Your task to perform on an android device: delete a single message in the gmail app Image 0: 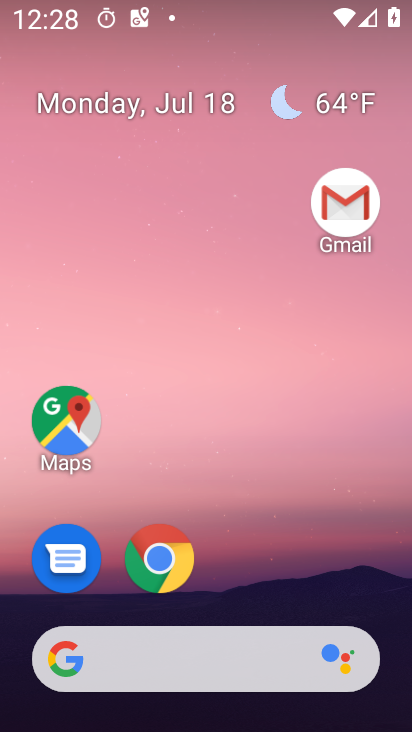
Step 0: drag from (285, 597) to (409, 231)
Your task to perform on an android device: delete a single message in the gmail app Image 1: 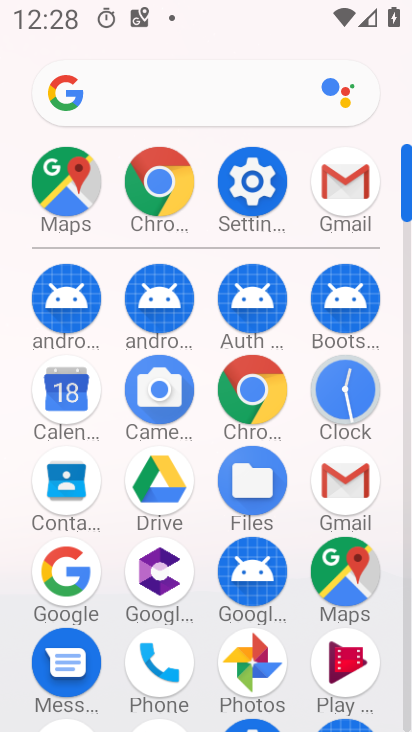
Step 1: click (345, 223)
Your task to perform on an android device: delete a single message in the gmail app Image 2: 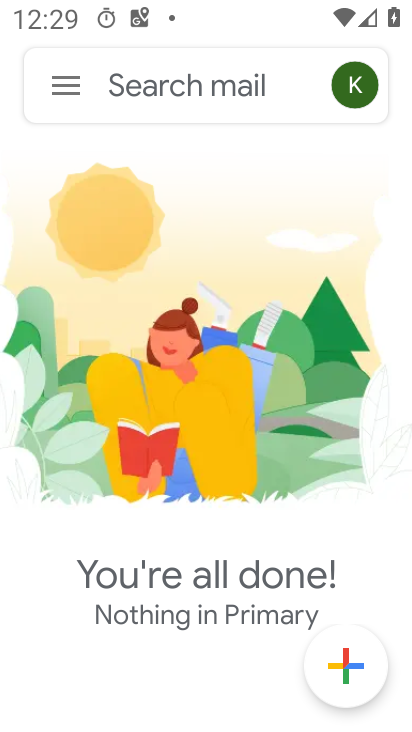
Step 2: task complete